Your task to perform on an android device: Open calendar and show me the third week of next month Image 0: 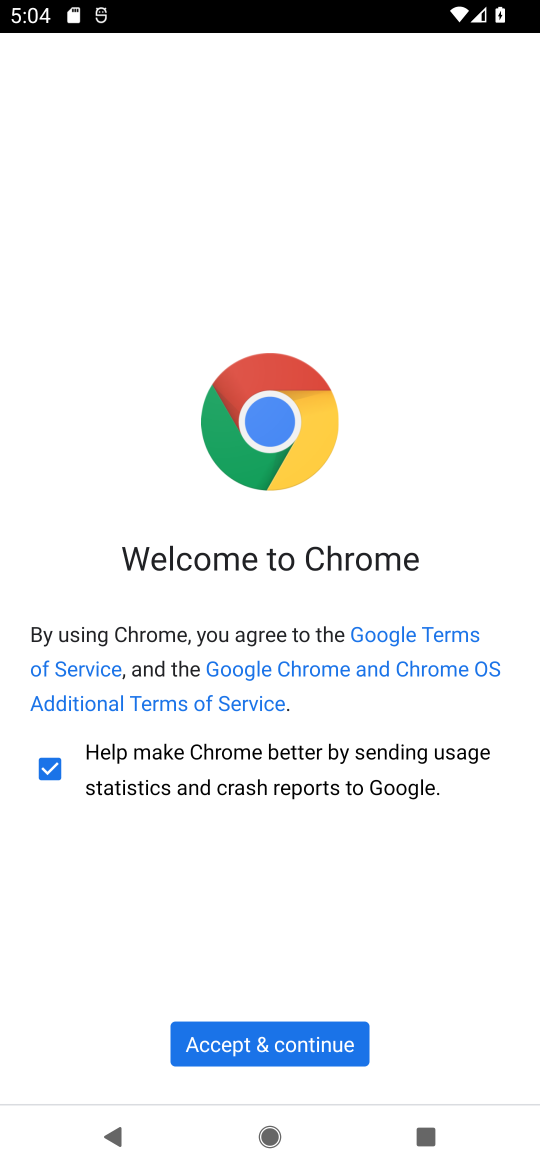
Step 0: press home button
Your task to perform on an android device: Open calendar and show me the third week of next month Image 1: 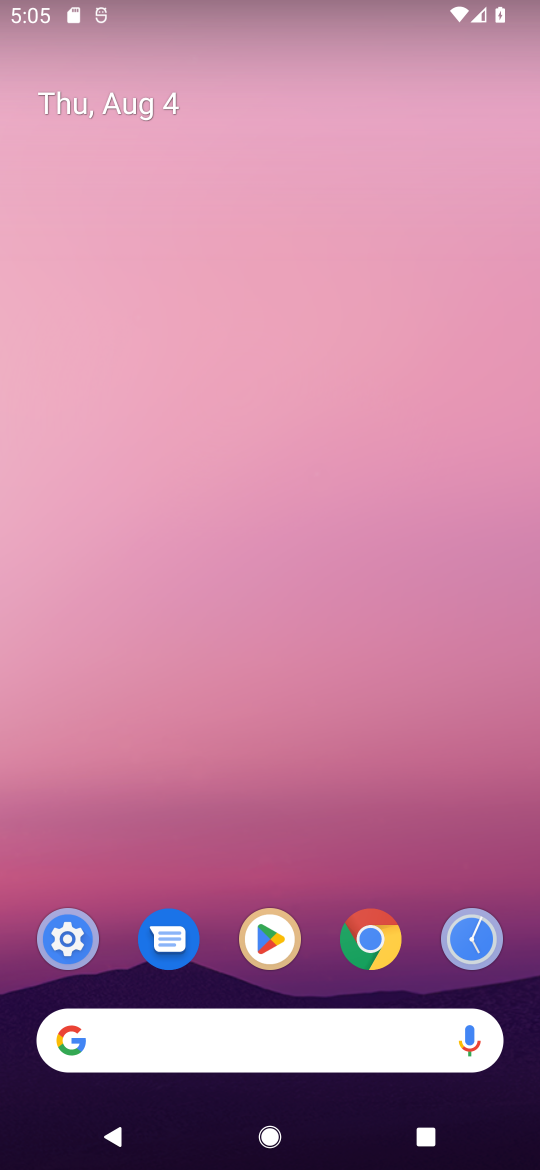
Step 1: drag from (187, 960) to (296, 582)
Your task to perform on an android device: Open calendar and show me the third week of next month Image 2: 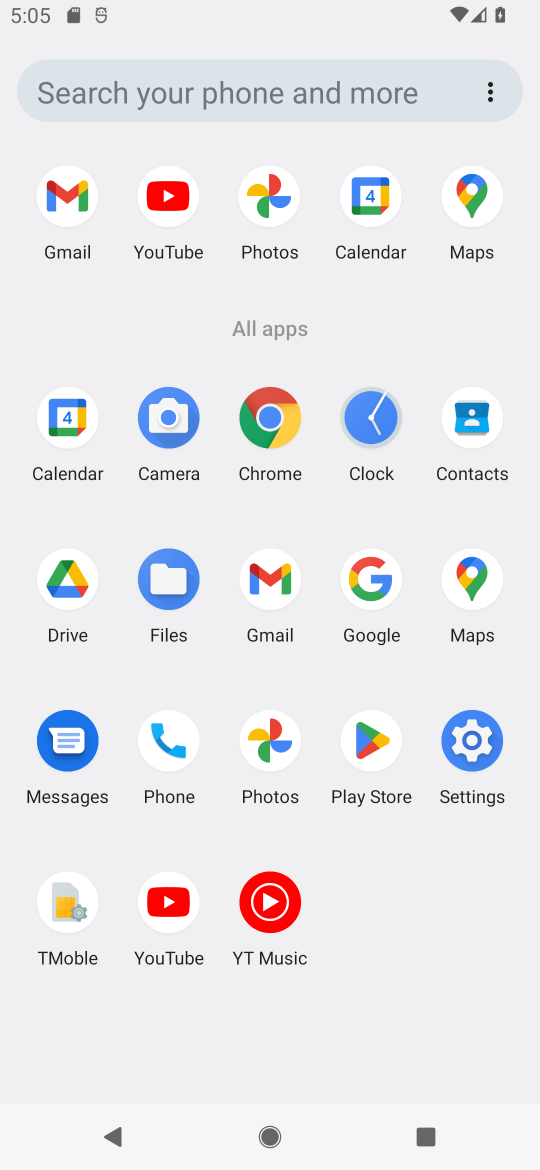
Step 2: click (390, 193)
Your task to perform on an android device: Open calendar and show me the third week of next month Image 3: 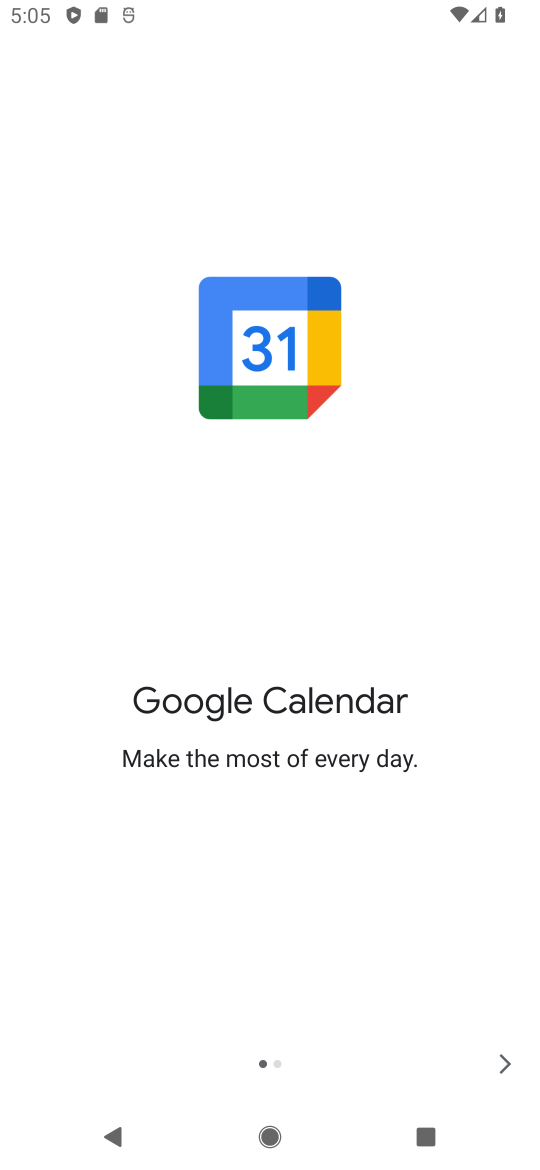
Step 3: click (496, 1065)
Your task to perform on an android device: Open calendar and show me the third week of next month Image 4: 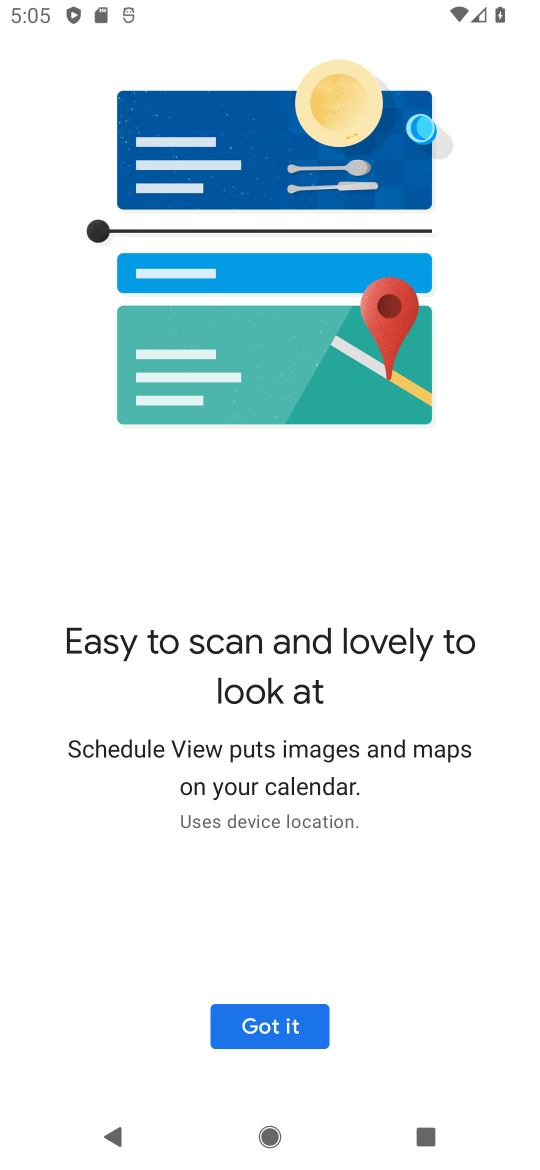
Step 4: click (496, 1065)
Your task to perform on an android device: Open calendar and show me the third week of next month Image 5: 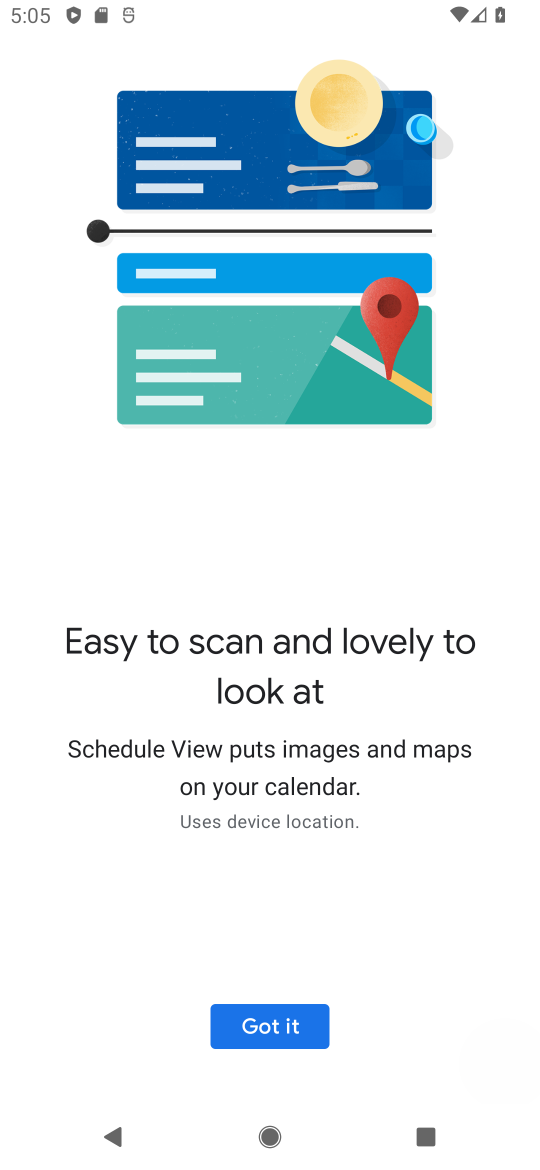
Step 5: click (274, 1024)
Your task to perform on an android device: Open calendar and show me the third week of next month Image 6: 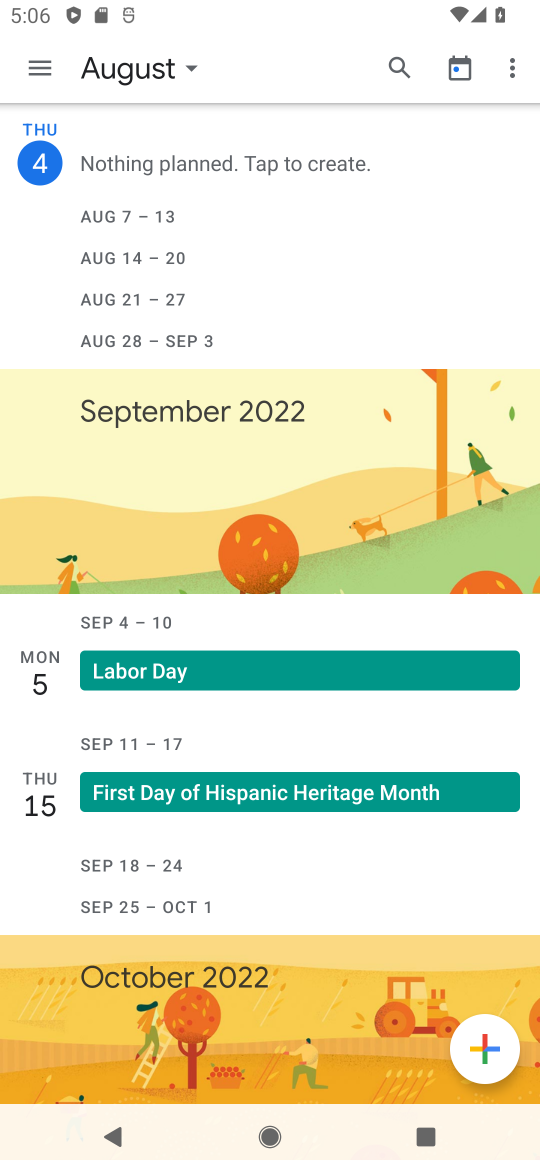
Step 6: click (128, 76)
Your task to perform on an android device: Open calendar and show me the third week of next month Image 7: 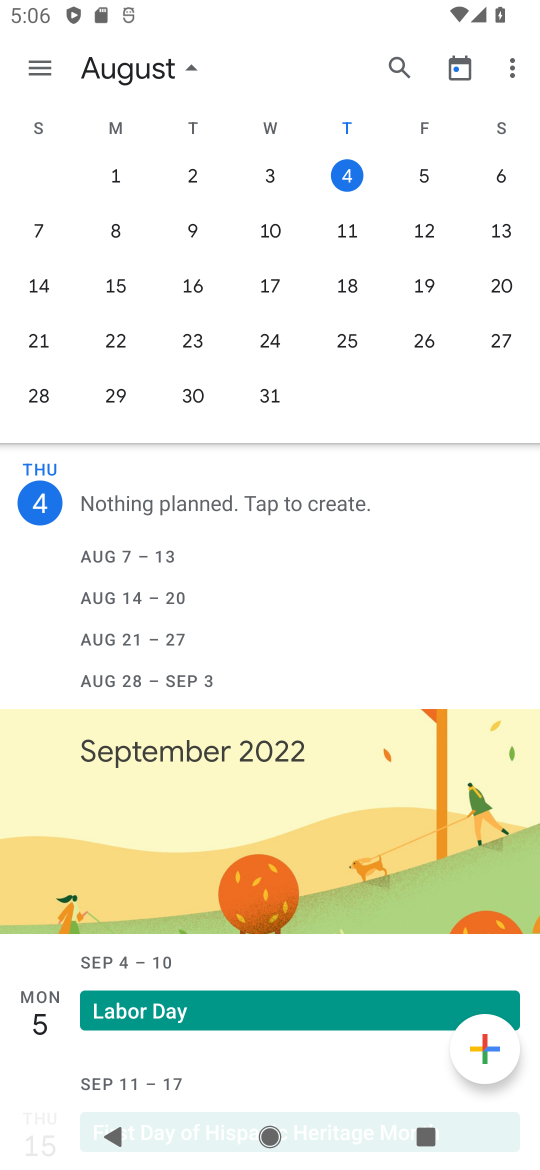
Step 7: drag from (448, 279) to (57, 355)
Your task to perform on an android device: Open calendar and show me the third week of next month Image 8: 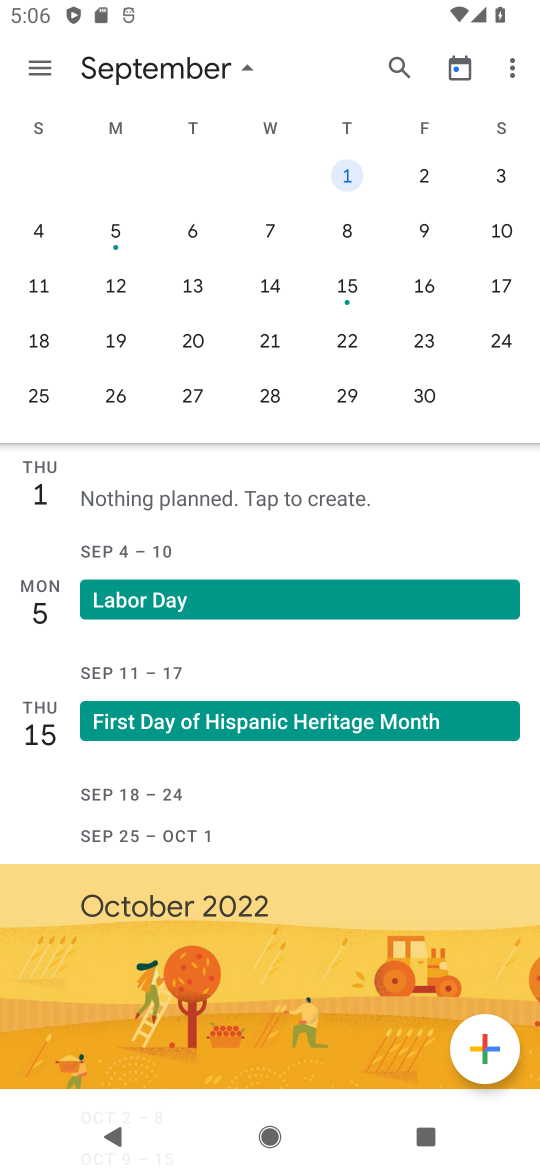
Step 8: click (40, 292)
Your task to perform on an android device: Open calendar and show me the third week of next month Image 9: 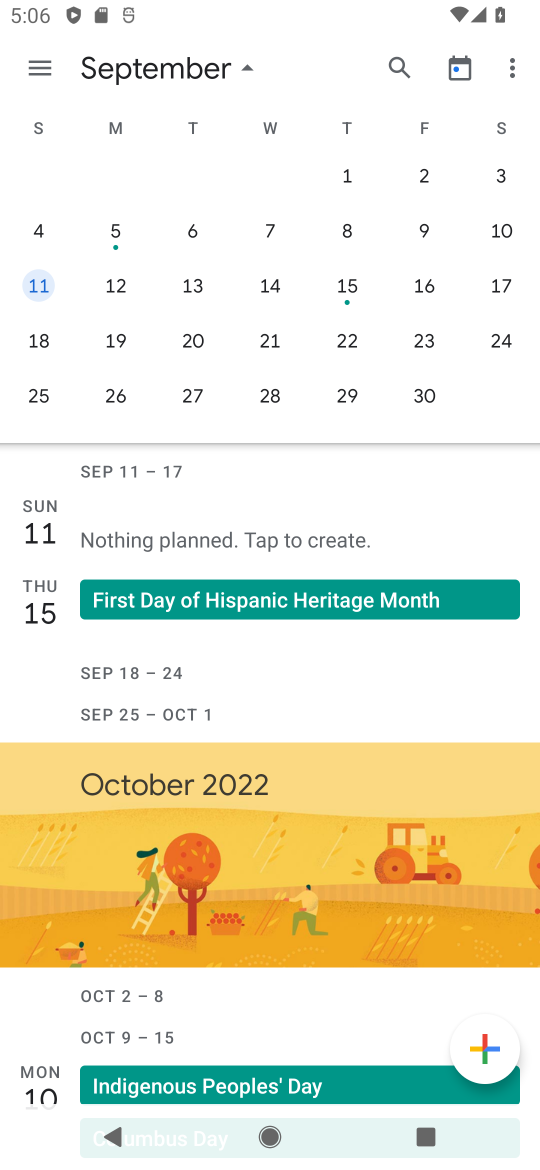
Step 9: task complete